Your task to perform on an android device: toggle show notifications on the lock screen Image 0: 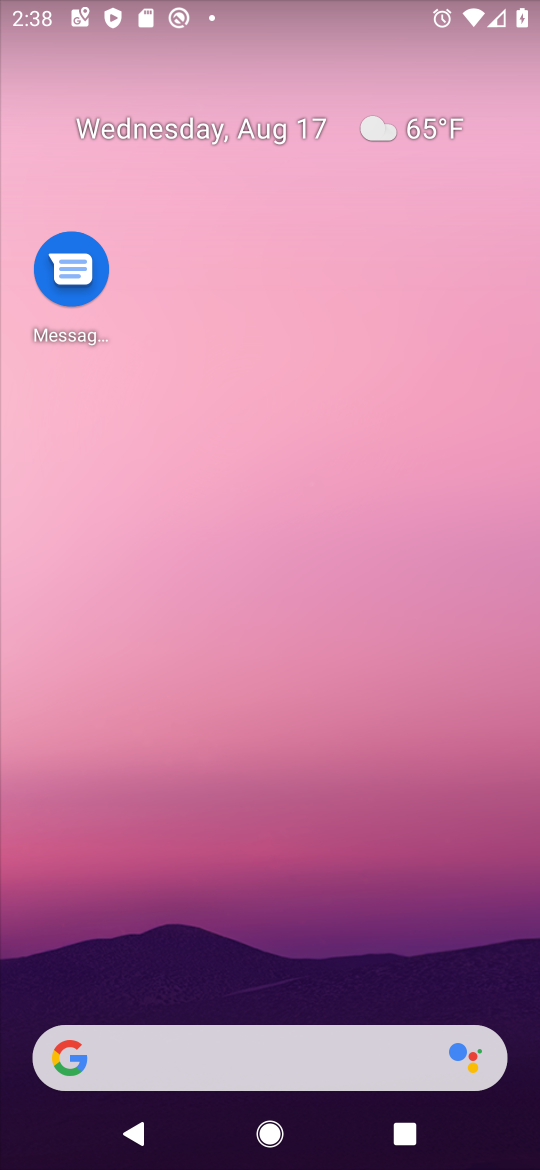
Step 0: drag from (289, 992) to (265, 68)
Your task to perform on an android device: toggle show notifications on the lock screen Image 1: 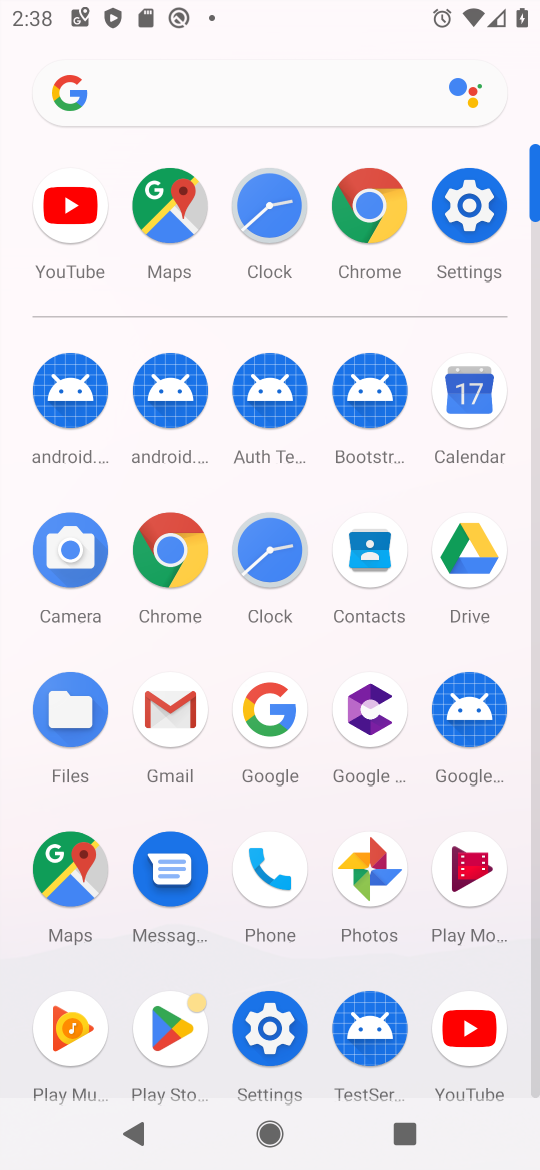
Step 1: click (471, 225)
Your task to perform on an android device: toggle show notifications on the lock screen Image 2: 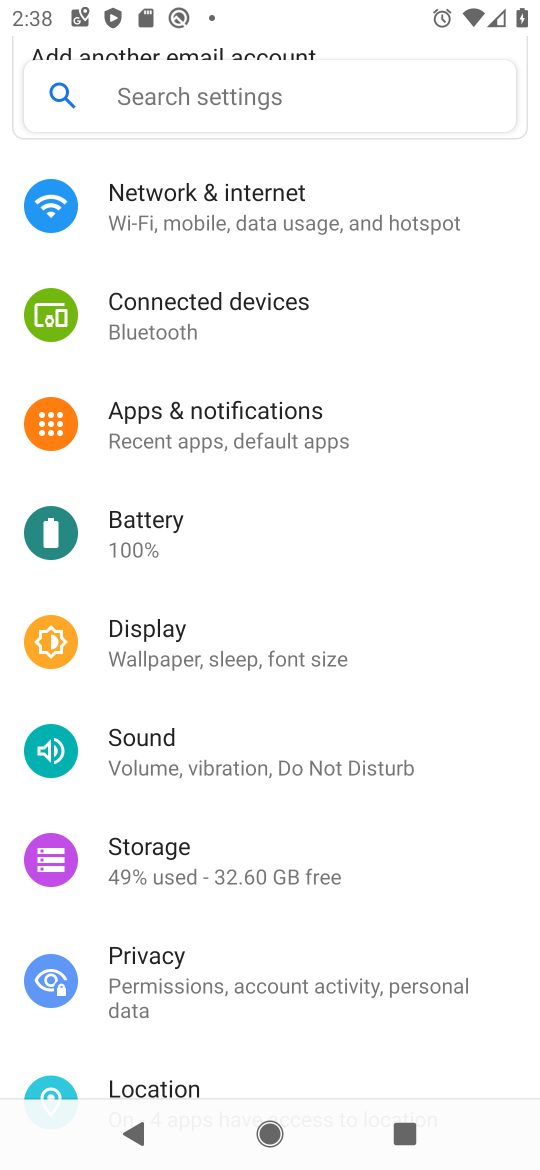
Step 2: click (238, 435)
Your task to perform on an android device: toggle show notifications on the lock screen Image 3: 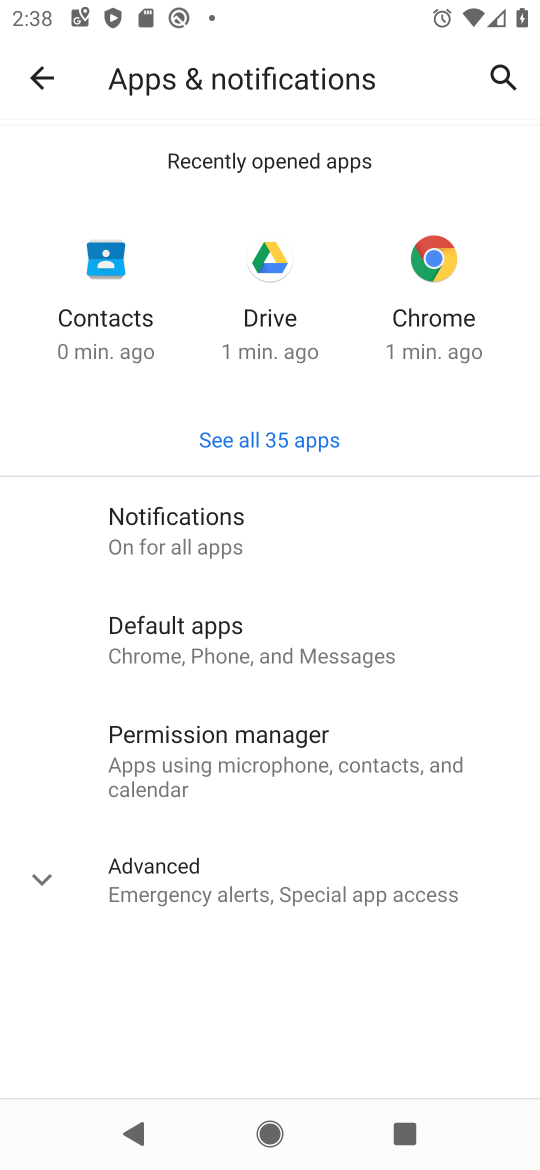
Step 3: click (184, 860)
Your task to perform on an android device: toggle show notifications on the lock screen Image 4: 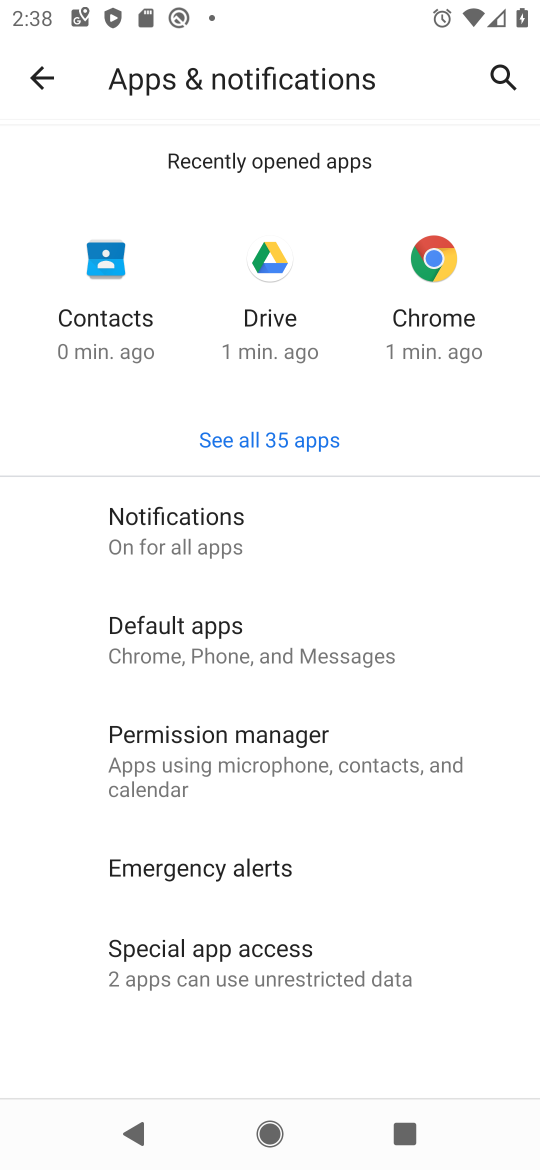
Step 4: click (187, 535)
Your task to perform on an android device: toggle show notifications on the lock screen Image 5: 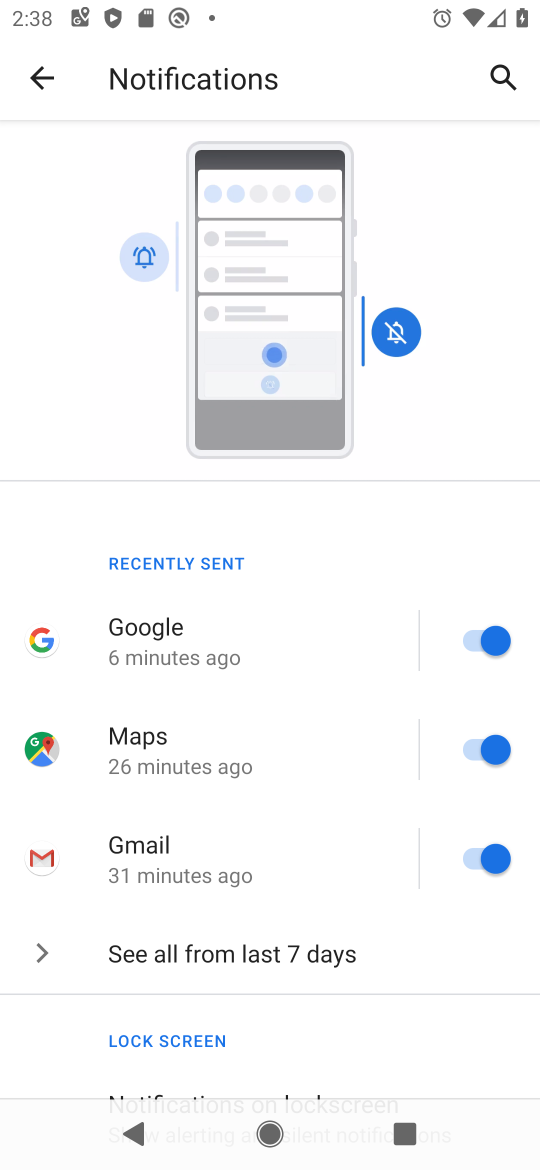
Step 5: drag from (292, 1022) to (259, 463)
Your task to perform on an android device: toggle show notifications on the lock screen Image 6: 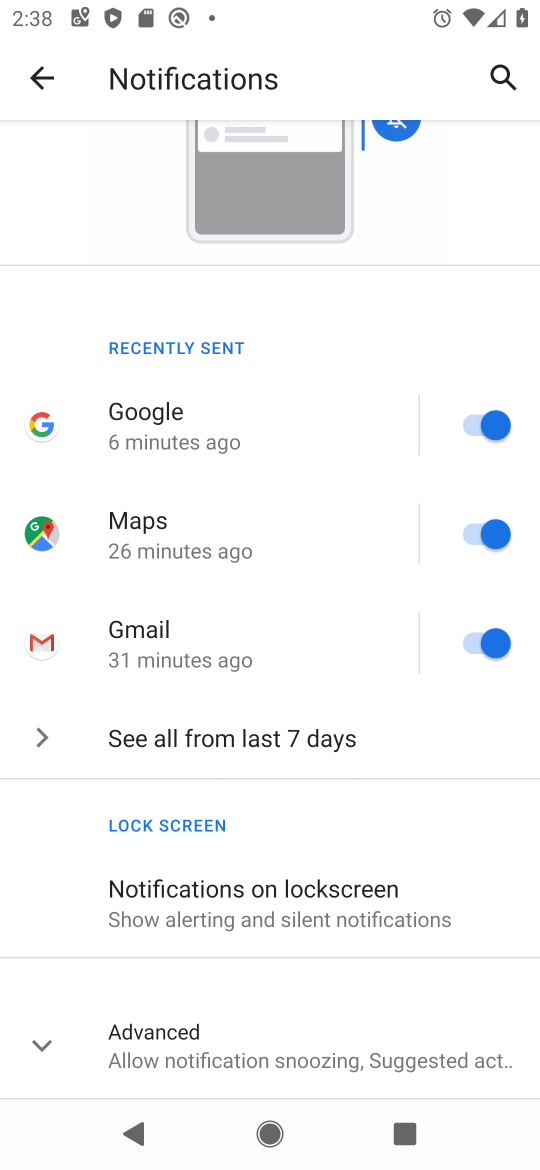
Step 6: click (217, 910)
Your task to perform on an android device: toggle show notifications on the lock screen Image 7: 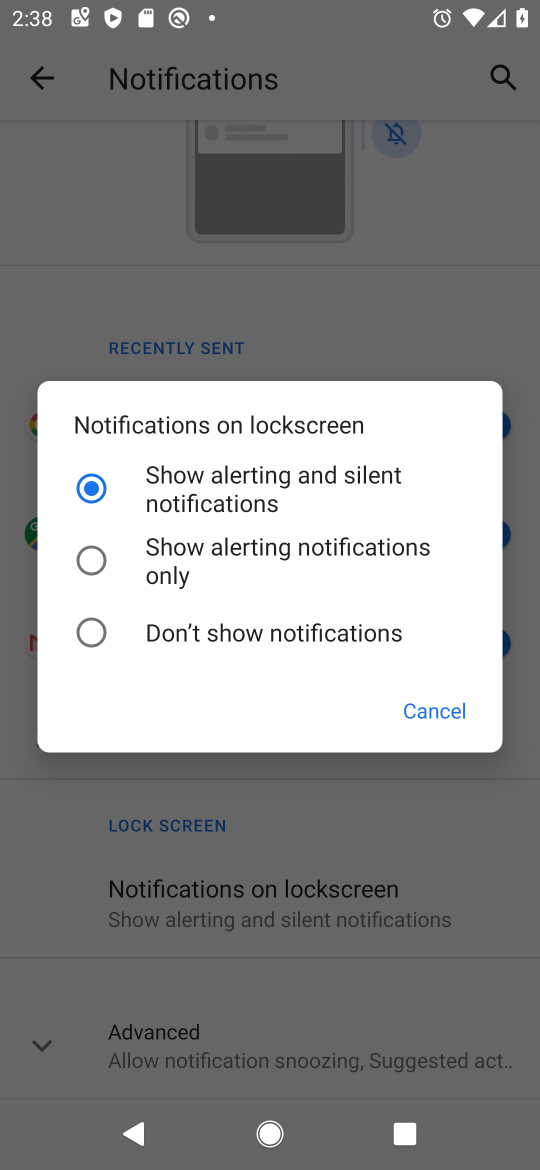
Step 7: click (187, 565)
Your task to perform on an android device: toggle show notifications on the lock screen Image 8: 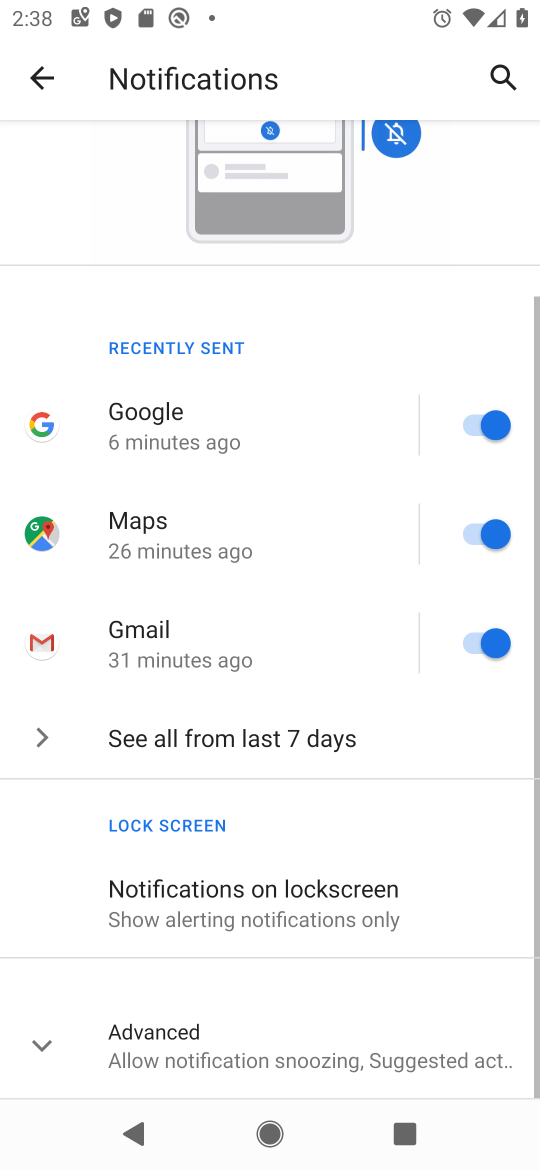
Step 8: task complete